Your task to perform on an android device: open sync settings in chrome Image 0: 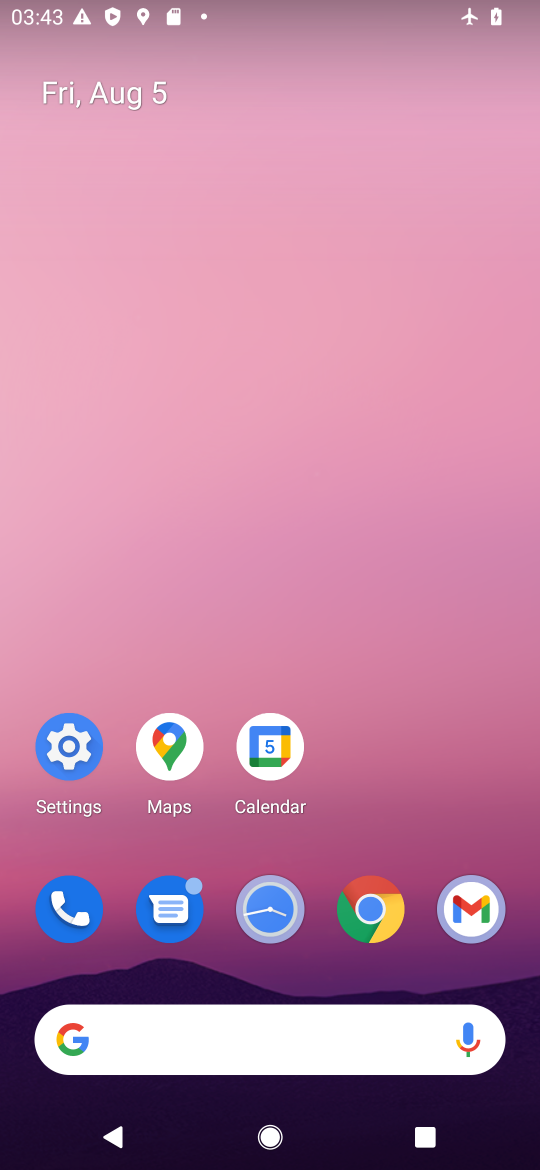
Step 0: click (358, 909)
Your task to perform on an android device: open sync settings in chrome Image 1: 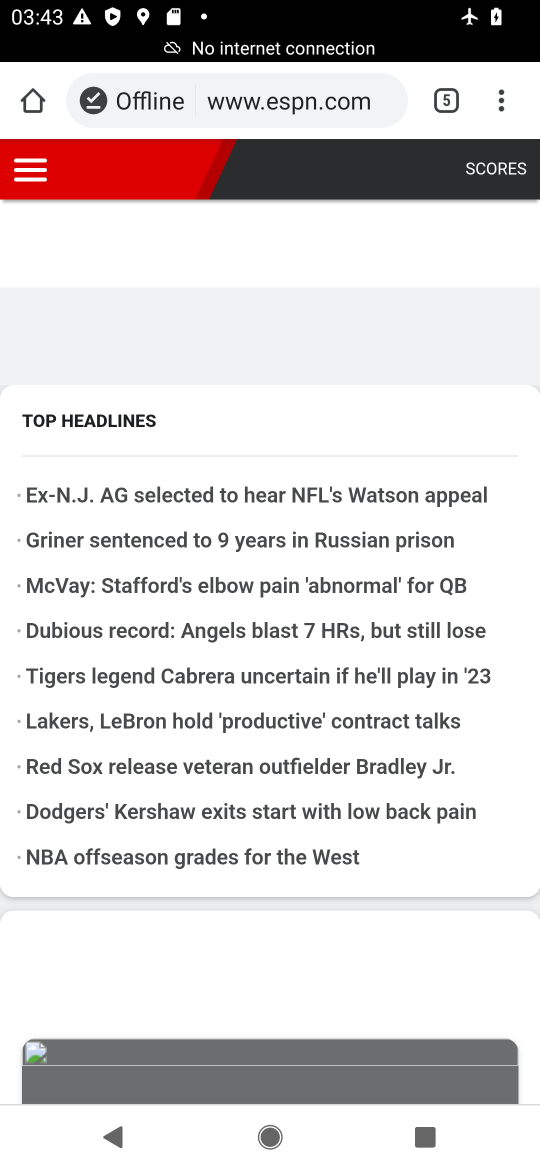
Step 1: click (509, 91)
Your task to perform on an android device: open sync settings in chrome Image 2: 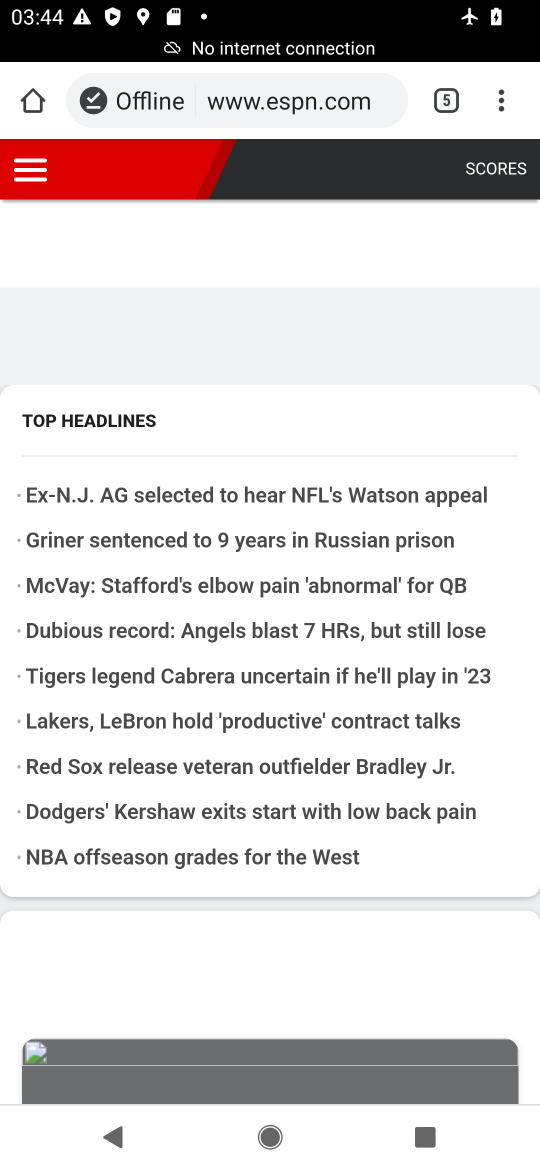
Step 2: click (505, 94)
Your task to perform on an android device: open sync settings in chrome Image 3: 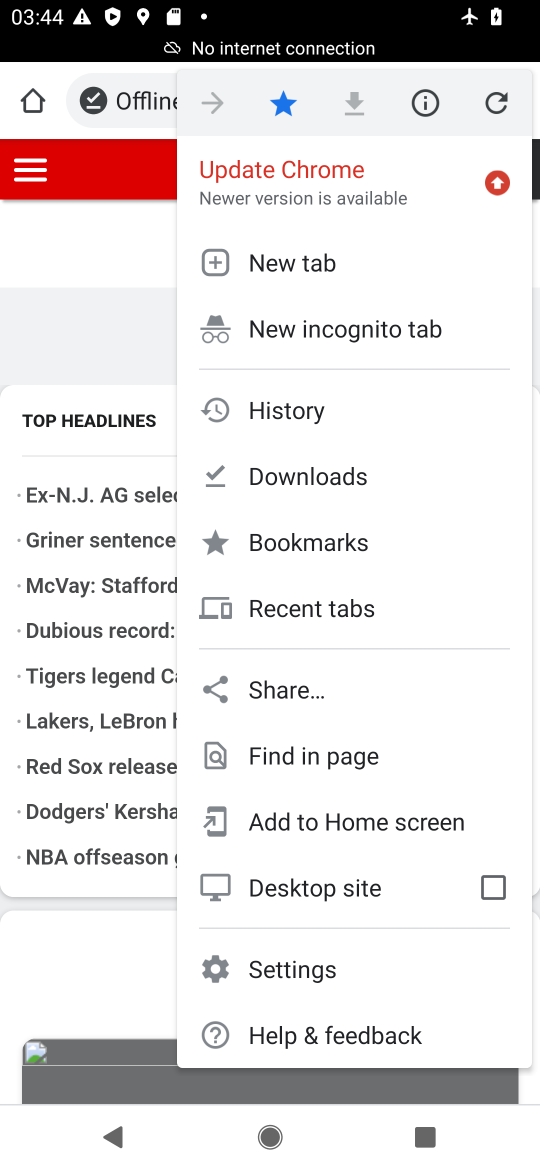
Step 3: click (313, 974)
Your task to perform on an android device: open sync settings in chrome Image 4: 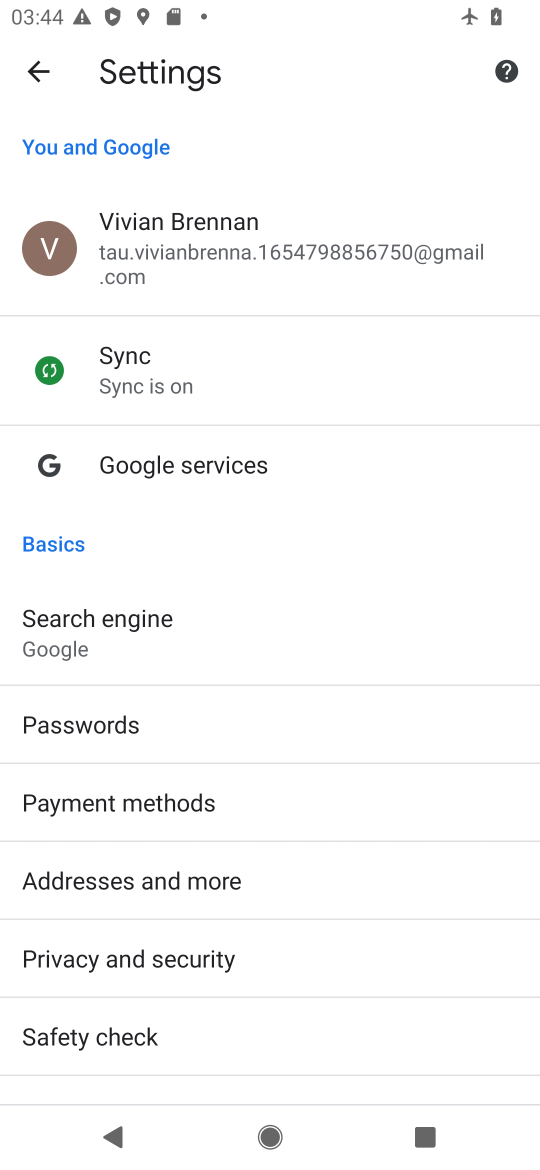
Step 4: click (128, 355)
Your task to perform on an android device: open sync settings in chrome Image 5: 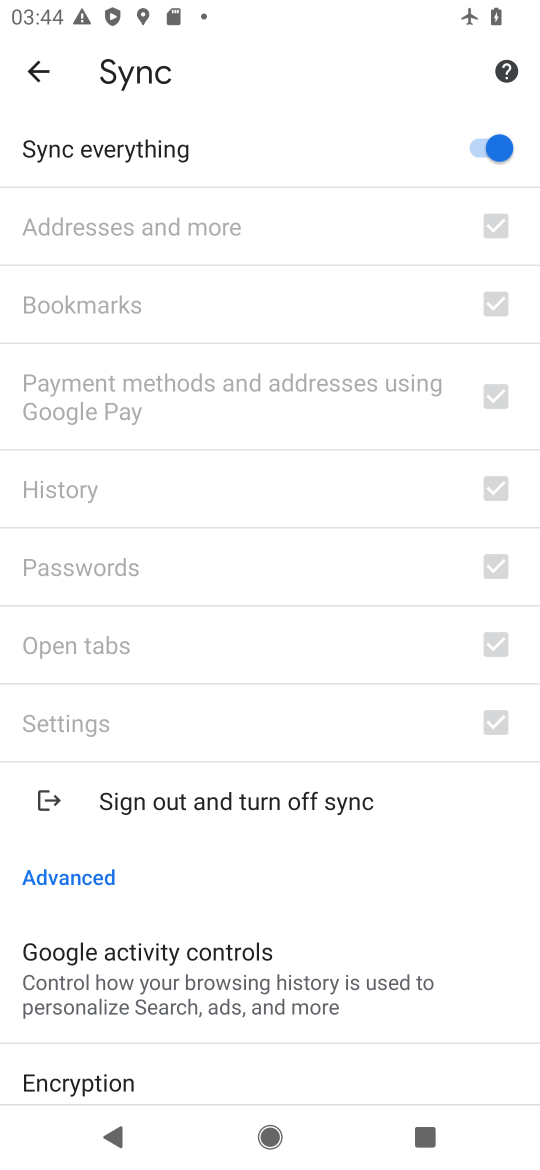
Step 5: task complete